Your task to perform on an android device: turn off wifi Image 0: 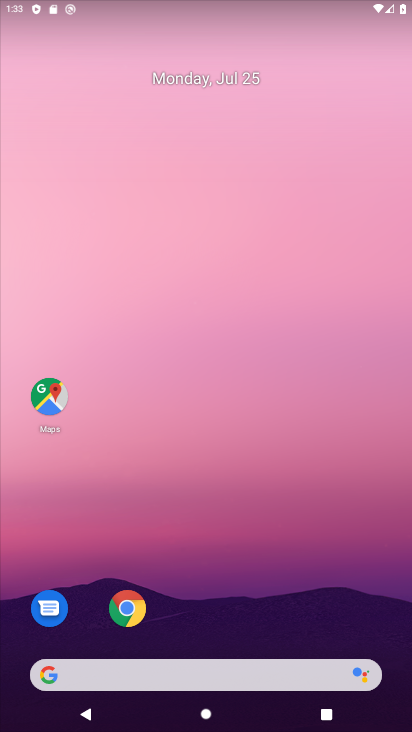
Step 0: drag from (186, 638) to (254, 84)
Your task to perform on an android device: turn off wifi Image 1: 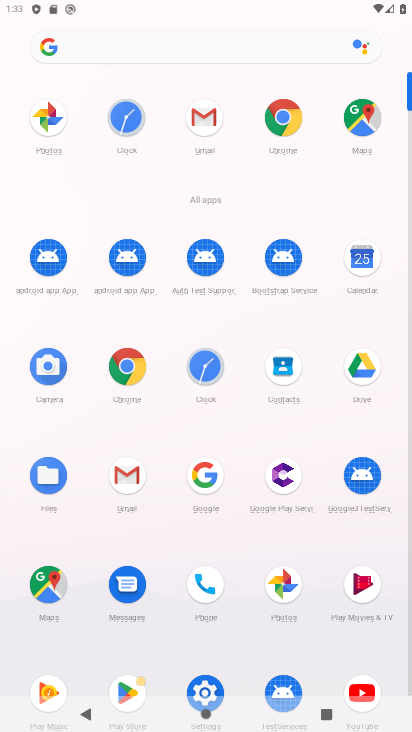
Step 1: click (207, 681)
Your task to perform on an android device: turn off wifi Image 2: 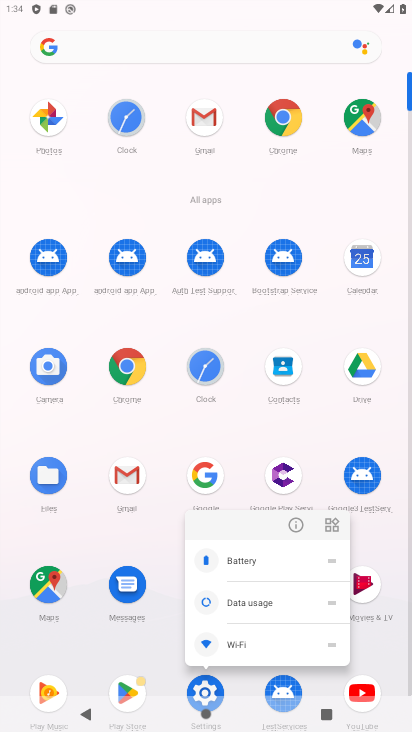
Step 2: click (198, 689)
Your task to perform on an android device: turn off wifi Image 3: 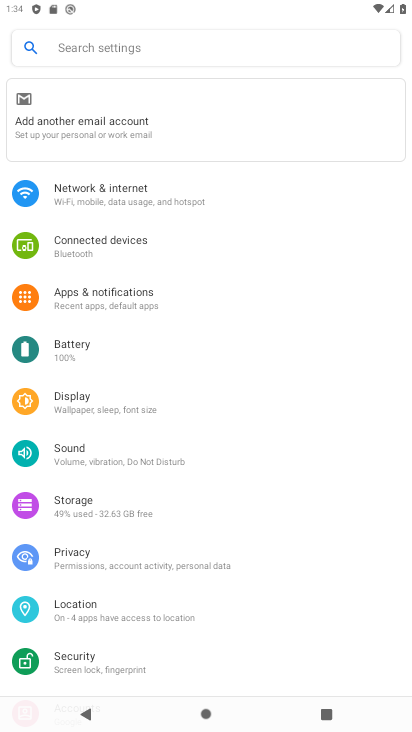
Step 3: click (135, 190)
Your task to perform on an android device: turn off wifi Image 4: 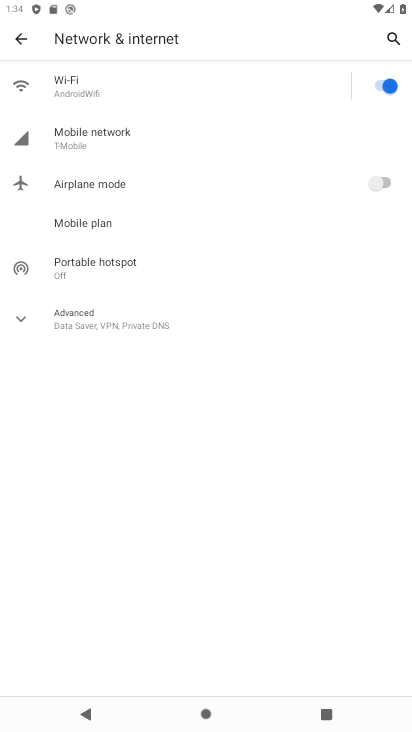
Step 4: click (378, 84)
Your task to perform on an android device: turn off wifi Image 5: 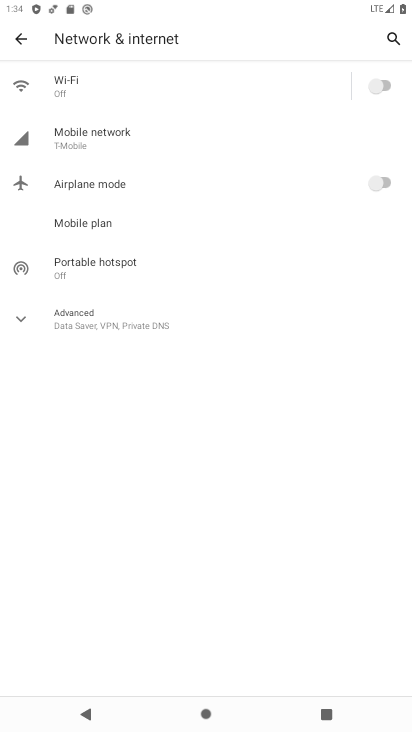
Step 5: task complete